Your task to perform on an android device: What's the weather? Image 0: 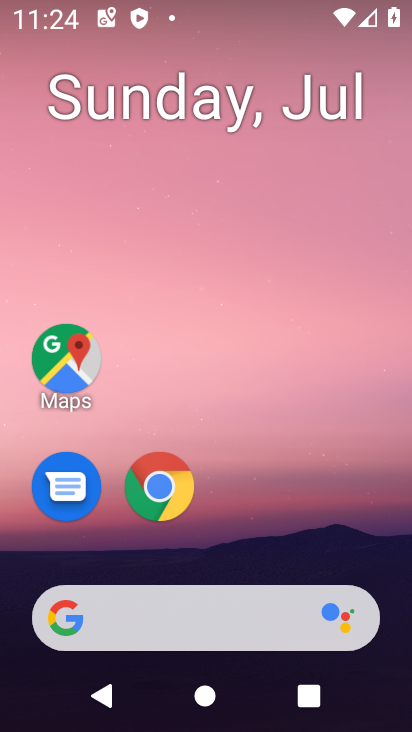
Step 0: click (257, 610)
Your task to perform on an android device: What's the weather? Image 1: 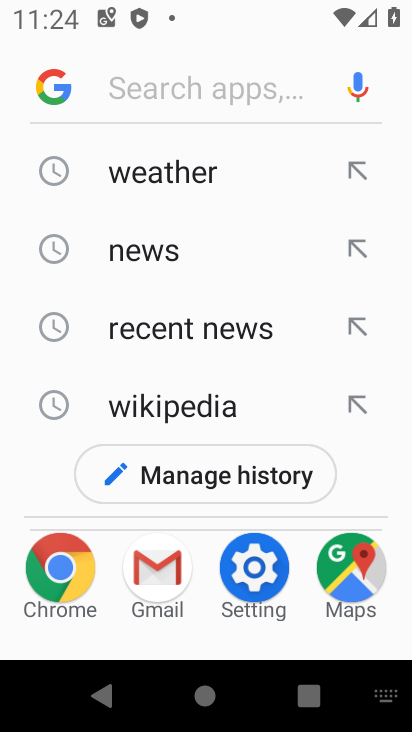
Step 1: click (200, 180)
Your task to perform on an android device: What's the weather? Image 2: 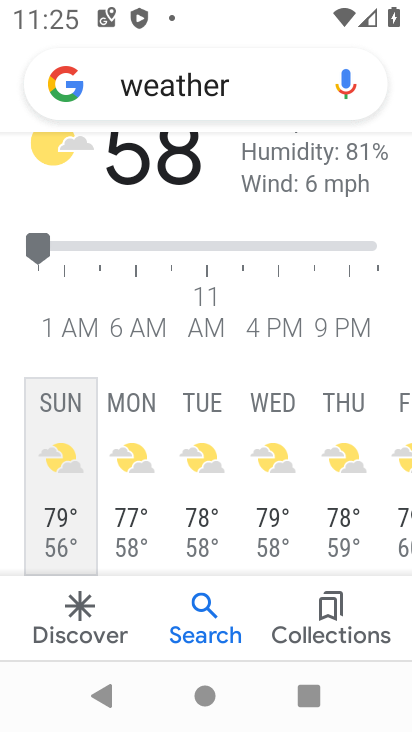
Step 2: task complete